Your task to perform on an android device: Open settings Image 0: 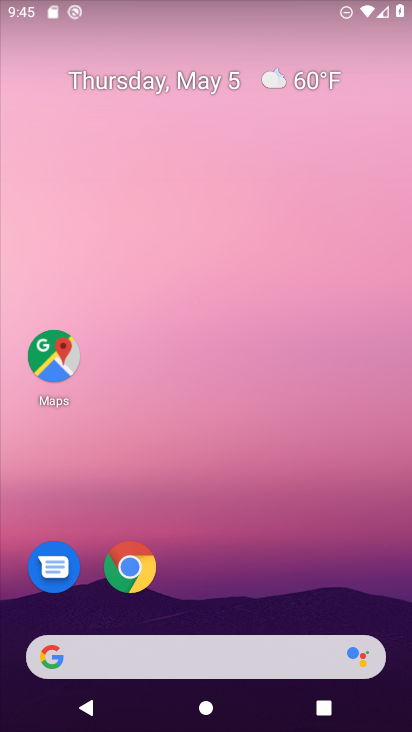
Step 0: drag from (223, 727) to (244, 135)
Your task to perform on an android device: Open settings Image 1: 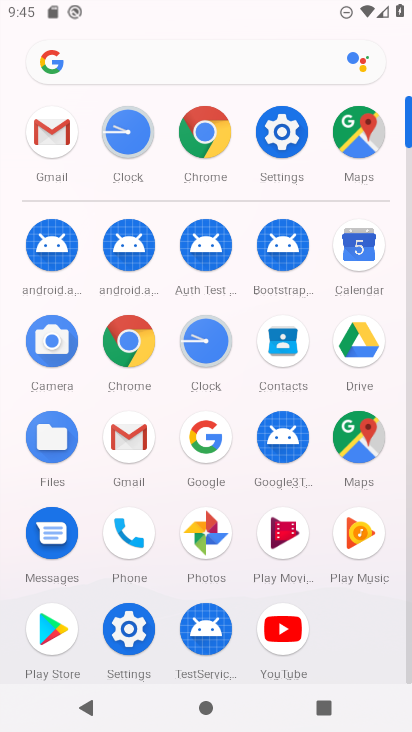
Step 1: click (283, 131)
Your task to perform on an android device: Open settings Image 2: 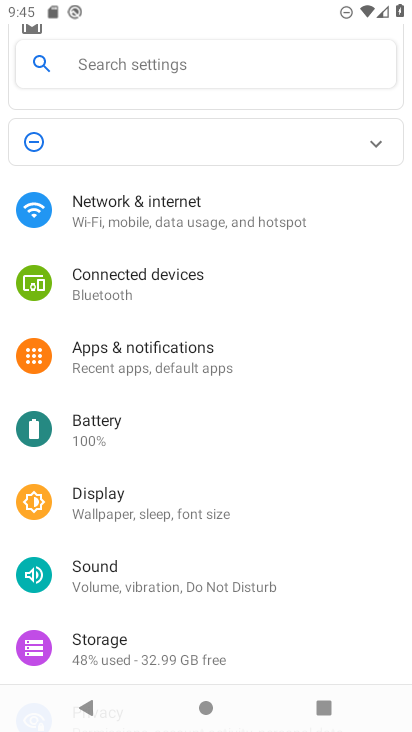
Step 2: task complete